Your task to perform on an android device: Empty the shopping cart on target. Add "macbook" to the cart on target, then select checkout. Image 0: 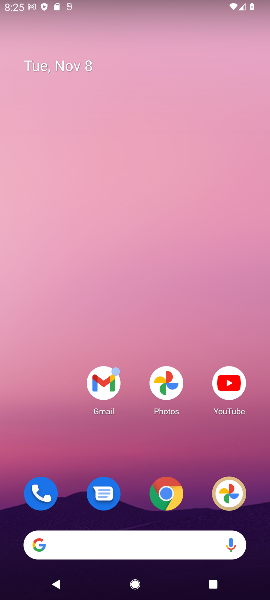
Step 0: click (162, 491)
Your task to perform on an android device: Empty the shopping cart on target. Add "macbook" to the cart on target, then select checkout. Image 1: 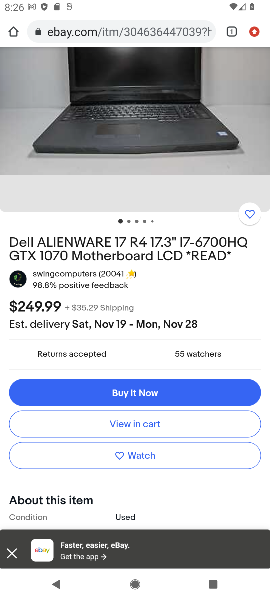
Step 1: drag from (105, 190) to (112, 339)
Your task to perform on an android device: Empty the shopping cart on target. Add "macbook" to the cart on target, then select checkout. Image 2: 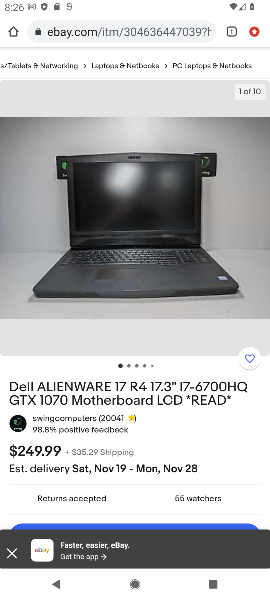
Step 2: click (99, 35)
Your task to perform on an android device: Empty the shopping cart on target. Add "macbook" to the cart on target, then select checkout. Image 3: 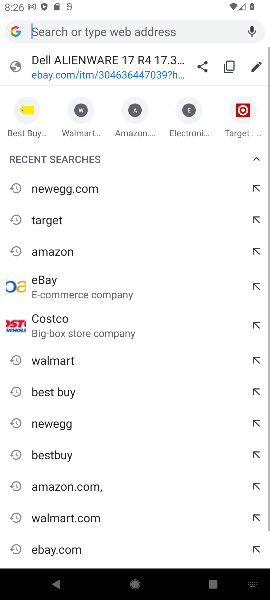
Step 3: click (245, 120)
Your task to perform on an android device: Empty the shopping cart on target. Add "macbook" to the cart on target, then select checkout. Image 4: 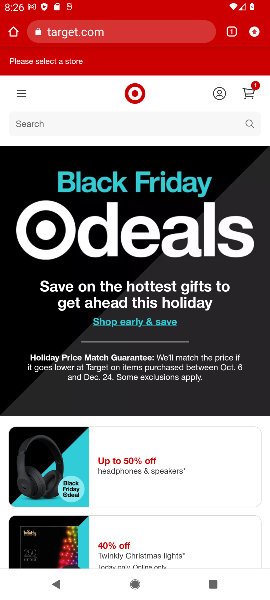
Step 4: click (248, 89)
Your task to perform on an android device: Empty the shopping cart on target. Add "macbook" to the cart on target, then select checkout. Image 5: 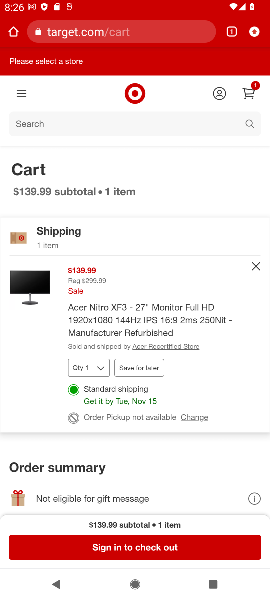
Step 5: click (254, 268)
Your task to perform on an android device: Empty the shopping cart on target. Add "macbook" to the cart on target, then select checkout. Image 6: 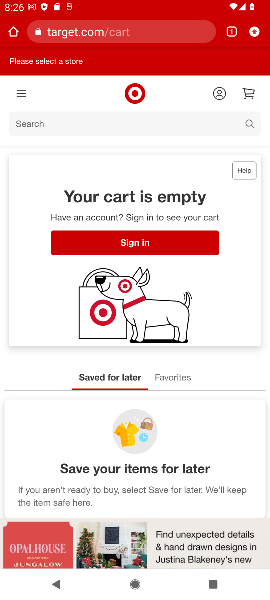
Step 6: click (247, 124)
Your task to perform on an android device: Empty the shopping cart on target. Add "macbook" to the cart on target, then select checkout. Image 7: 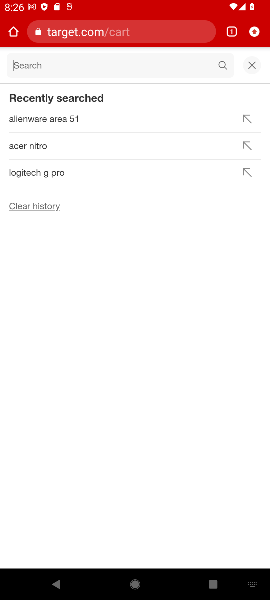
Step 7: type "macbook"
Your task to perform on an android device: Empty the shopping cart on target. Add "macbook" to the cart on target, then select checkout. Image 8: 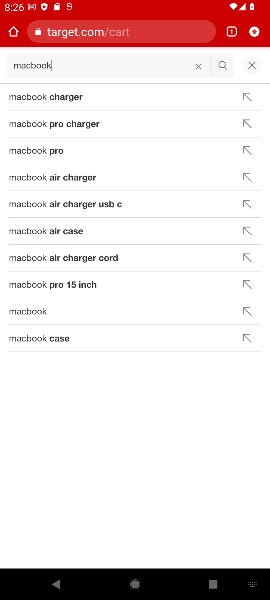
Step 8: click (34, 68)
Your task to perform on an android device: Empty the shopping cart on target. Add "macbook" to the cart on target, then select checkout. Image 9: 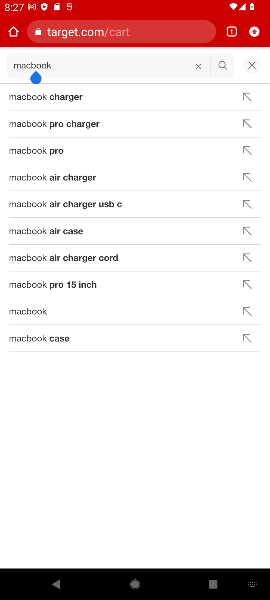
Step 9: click (22, 307)
Your task to perform on an android device: Empty the shopping cart on target. Add "macbook" to the cart on target, then select checkout. Image 10: 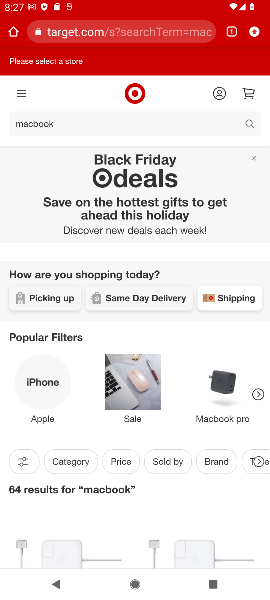
Step 10: task complete